Your task to perform on an android device: Go to Yahoo.com Image 0: 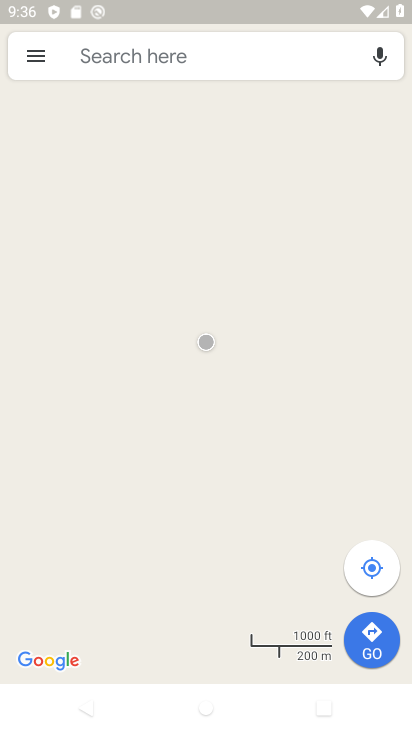
Step 0: press home button
Your task to perform on an android device: Go to Yahoo.com Image 1: 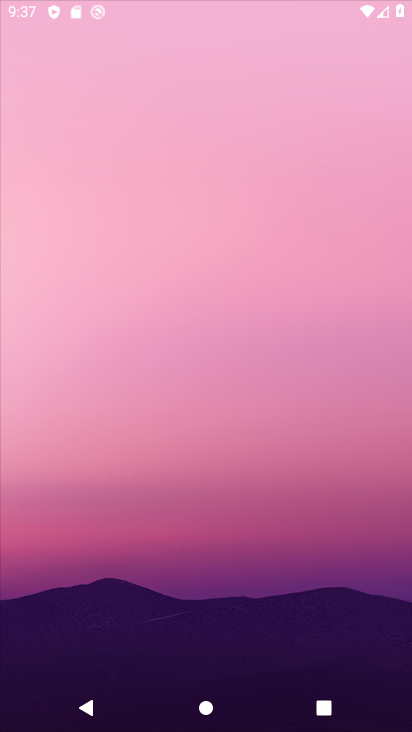
Step 1: press home button
Your task to perform on an android device: Go to Yahoo.com Image 2: 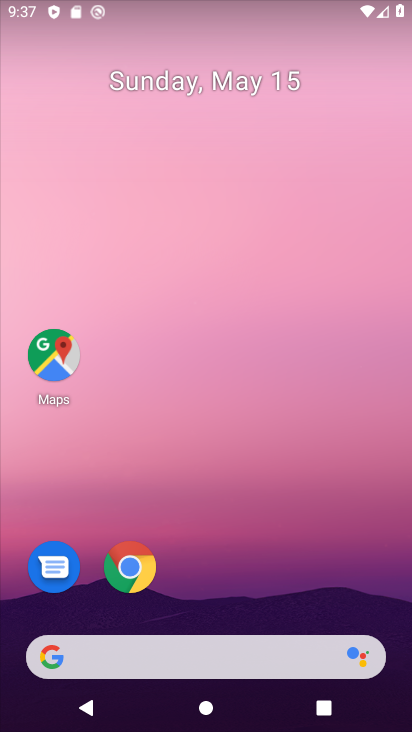
Step 2: click (122, 567)
Your task to perform on an android device: Go to Yahoo.com Image 3: 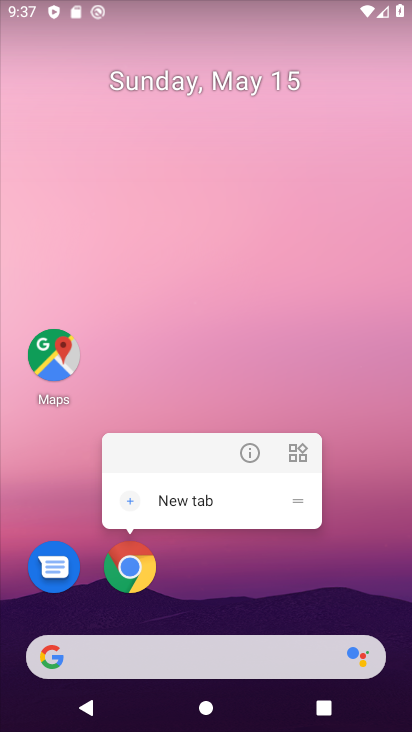
Step 3: click (136, 558)
Your task to perform on an android device: Go to Yahoo.com Image 4: 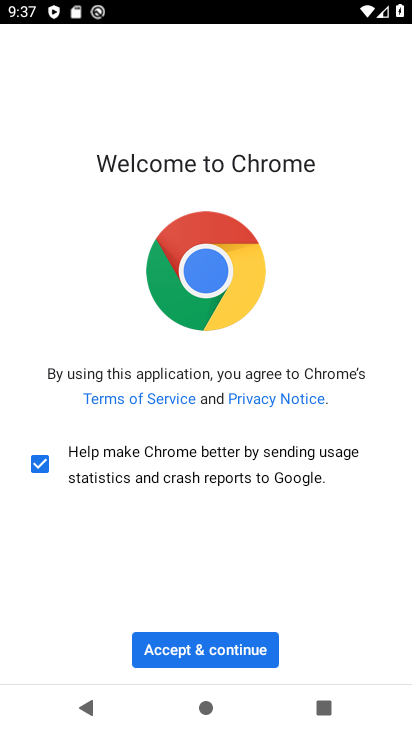
Step 4: click (202, 644)
Your task to perform on an android device: Go to Yahoo.com Image 5: 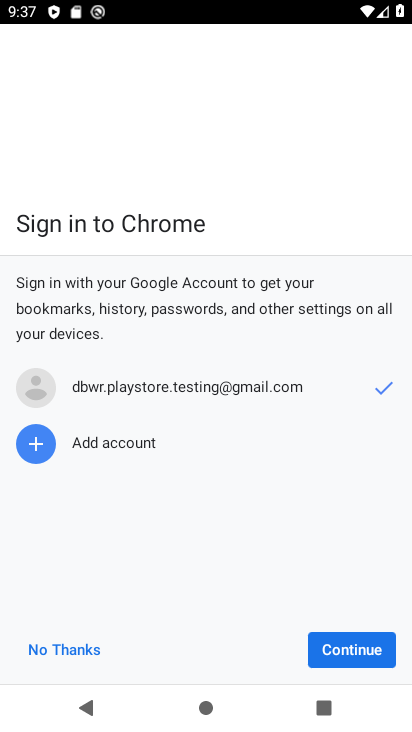
Step 5: click (361, 649)
Your task to perform on an android device: Go to Yahoo.com Image 6: 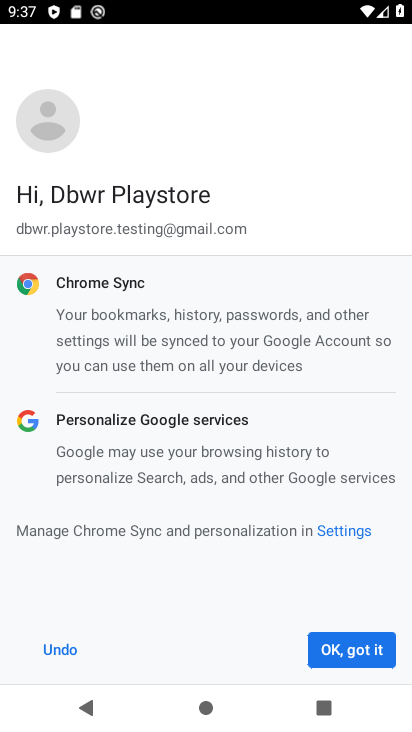
Step 6: click (361, 649)
Your task to perform on an android device: Go to Yahoo.com Image 7: 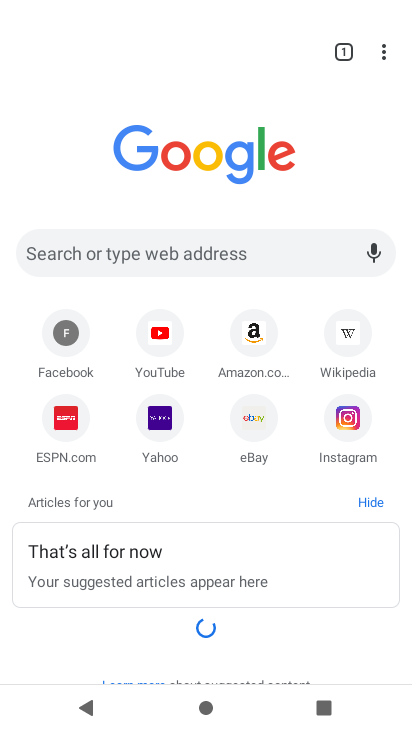
Step 7: click (165, 421)
Your task to perform on an android device: Go to Yahoo.com Image 8: 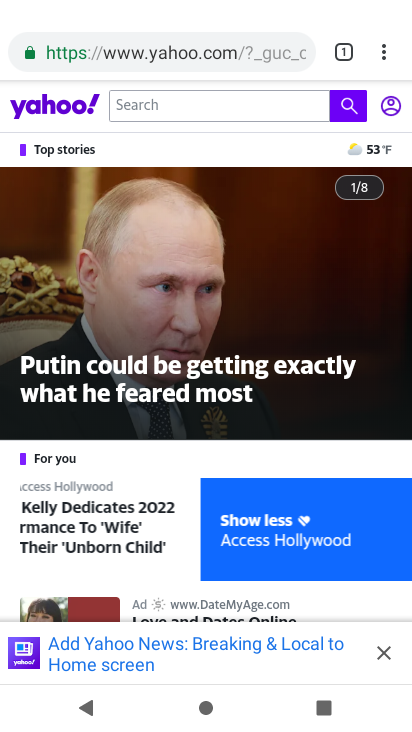
Step 8: task complete